Your task to perform on an android device: turn off location history Image 0: 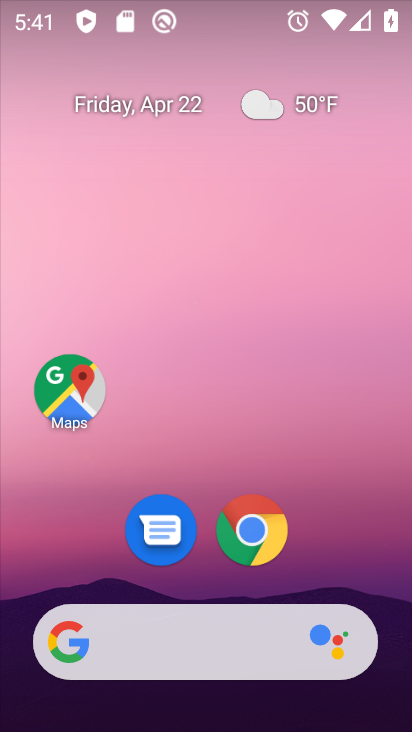
Step 0: drag from (336, 360) to (316, 115)
Your task to perform on an android device: turn off location history Image 1: 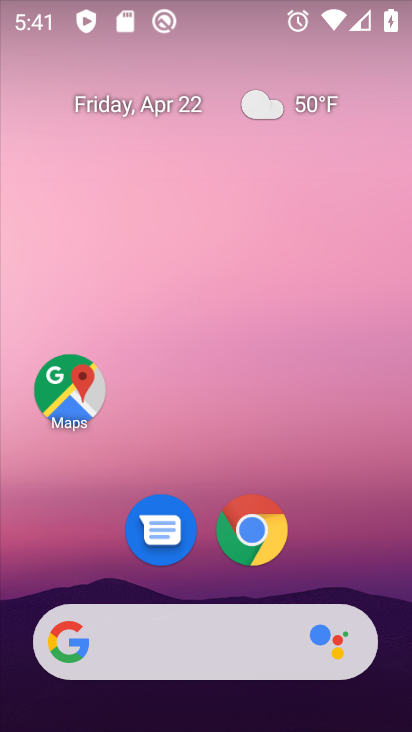
Step 1: drag from (300, 548) to (312, 135)
Your task to perform on an android device: turn off location history Image 2: 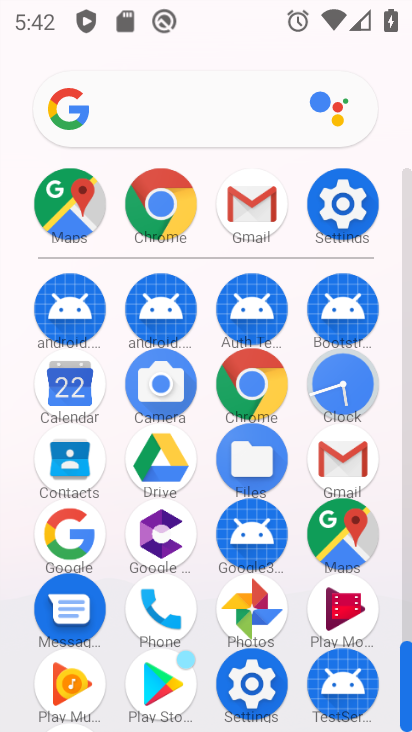
Step 2: click (341, 545)
Your task to perform on an android device: turn off location history Image 3: 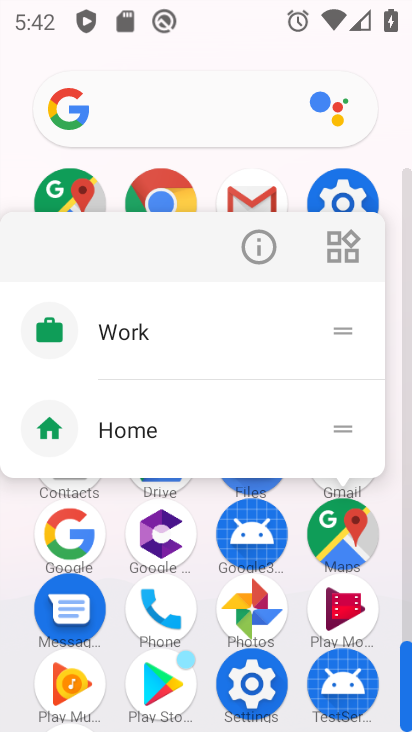
Step 3: click (344, 544)
Your task to perform on an android device: turn off location history Image 4: 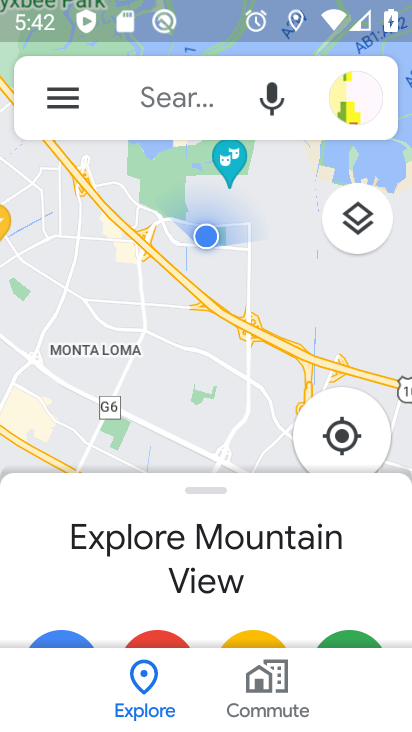
Step 4: click (64, 88)
Your task to perform on an android device: turn off location history Image 5: 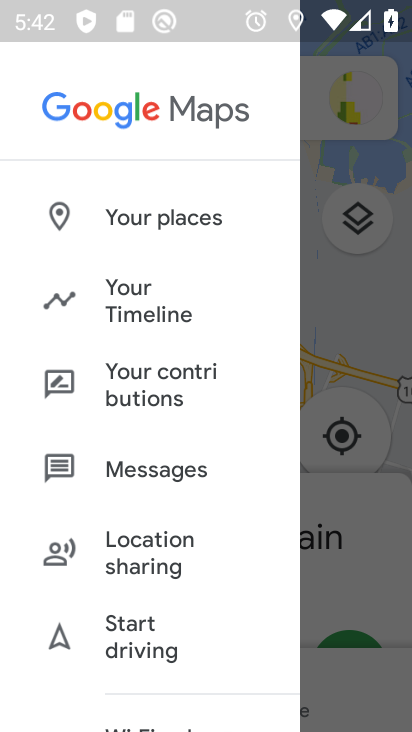
Step 5: click (150, 314)
Your task to perform on an android device: turn off location history Image 6: 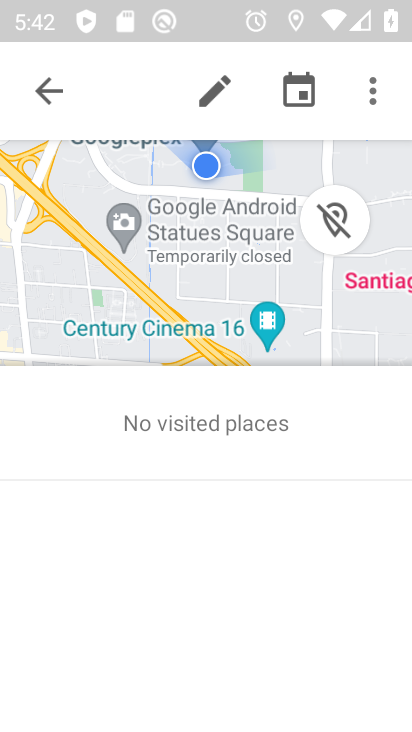
Step 6: click (369, 97)
Your task to perform on an android device: turn off location history Image 7: 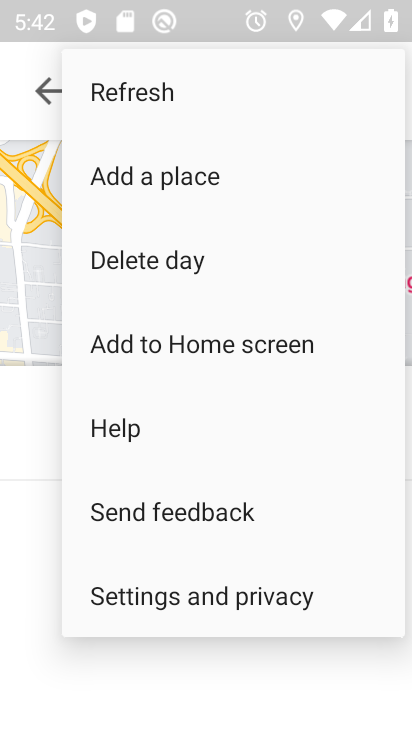
Step 7: click (243, 595)
Your task to perform on an android device: turn off location history Image 8: 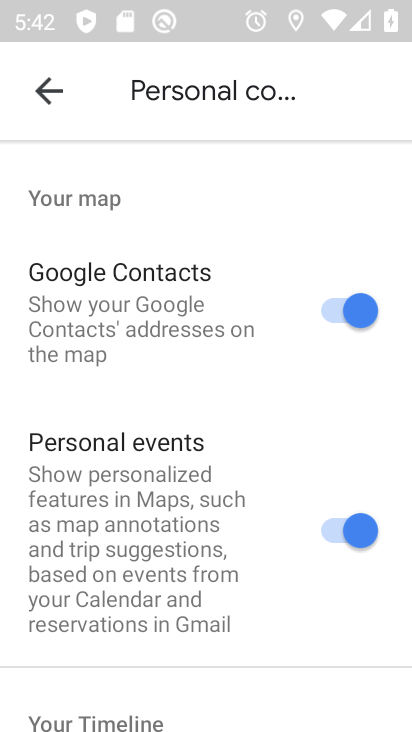
Step 8: drag from (308, 443) to (325, 165)
Your task to perform on an android device: turn off location history Image 9: 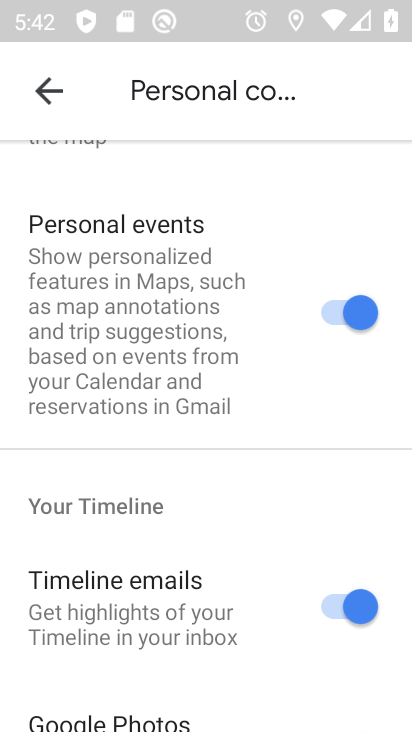
Step 9: drag from (280, 638) to (291, 229)
Your task to perform on an android device: turn off location history Image 10: 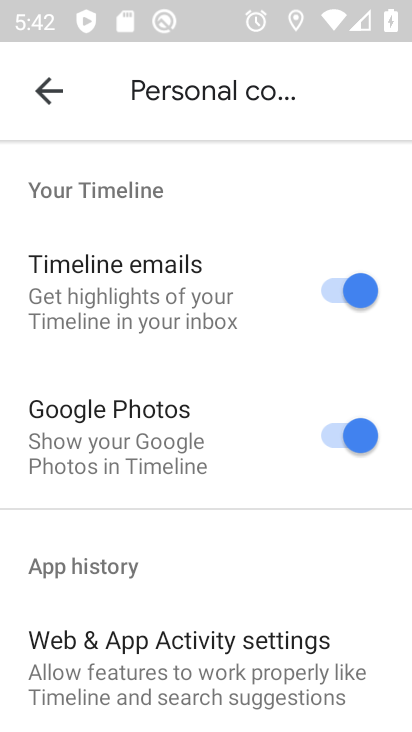
Step 10: drag from (260, 557) to (273, 221)
Your task to perform on an android device: turn off location history Image 11: 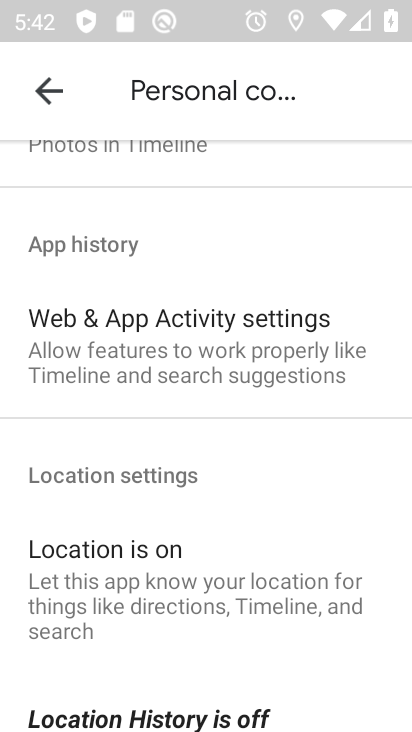
Step 11: click (249, 712)
Your task to perform on an android device: turn off location history Image 12: 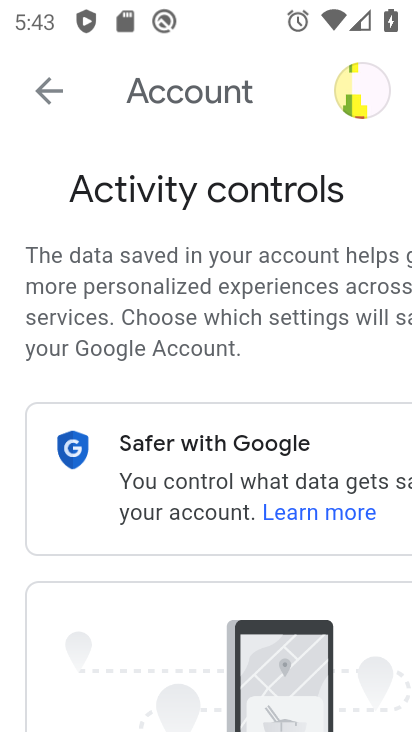
Step 12: task complete